Your task to perform on an android device: change the clock style Image 0: 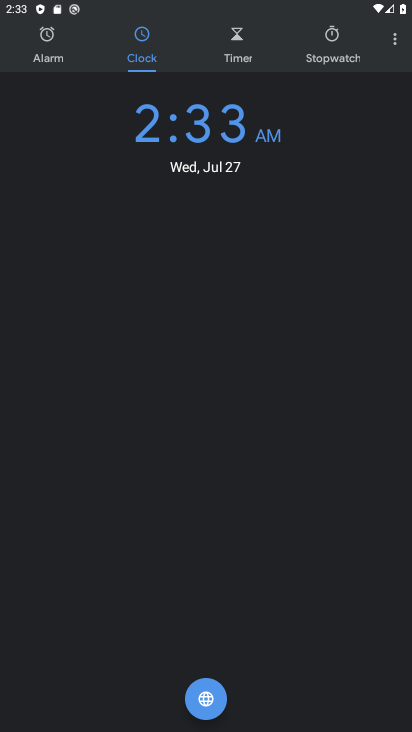
Step 0: press home button
Your task to perform on an android device: change the clock style Image 1: 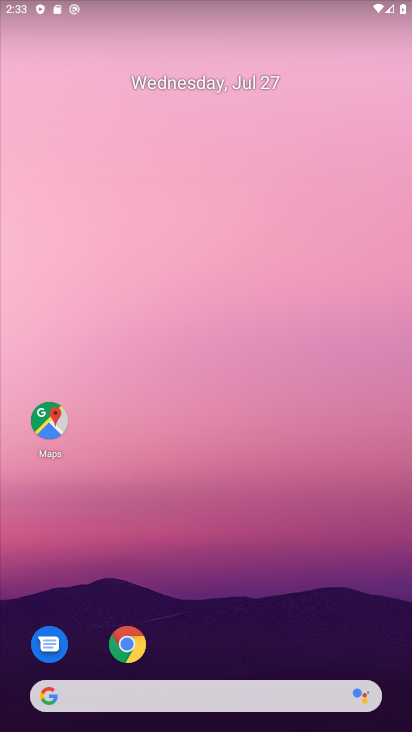
Step 1: drag from (262, 638) to (303, 16)
Your task to perform on an android device: change the clock style Image 2: 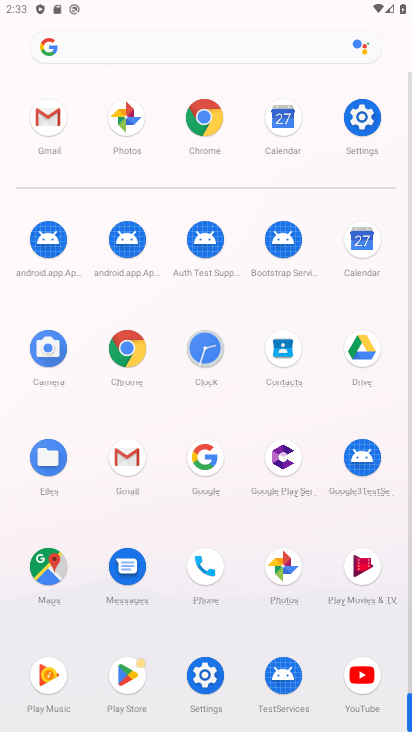
Step 2: click (213, 362)
Your task to perform on an android device: change the clock style Image 3: 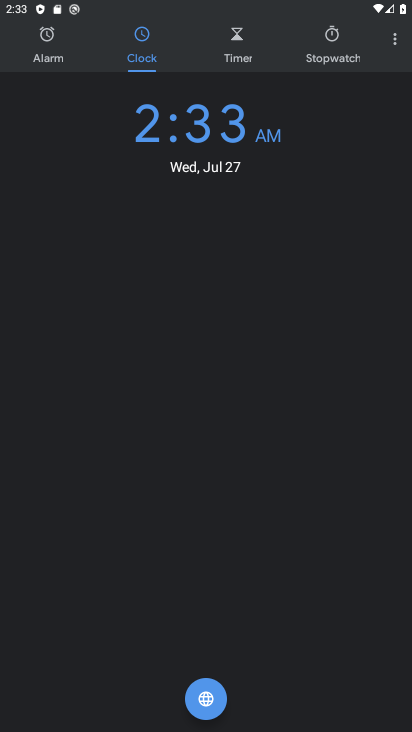
Step 3: click (391, 38)
Your task to perform on an android device: change the clock style Image 4: 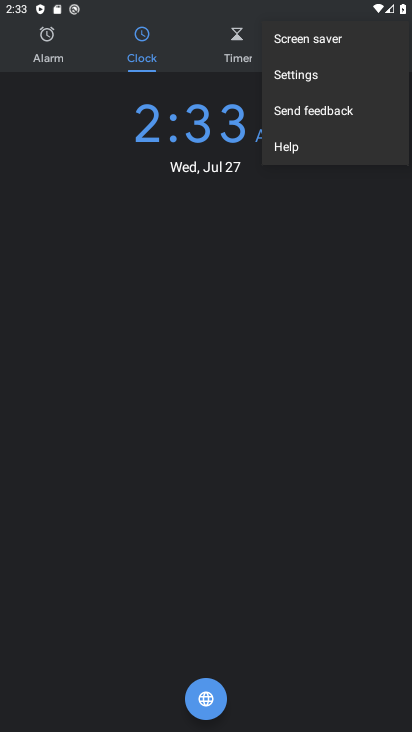
Step 4: click (310, 80)
Your task to perform on an android device: change the clock style Image 5: 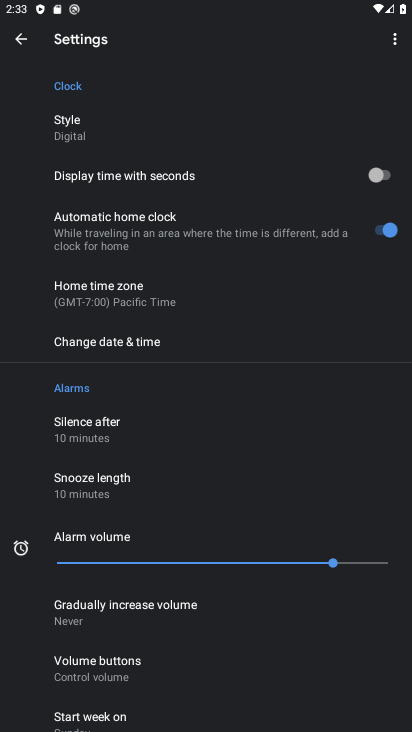
Step 5: click (97, 131)
Your task to perform on an android device: change the clock style Image 6: 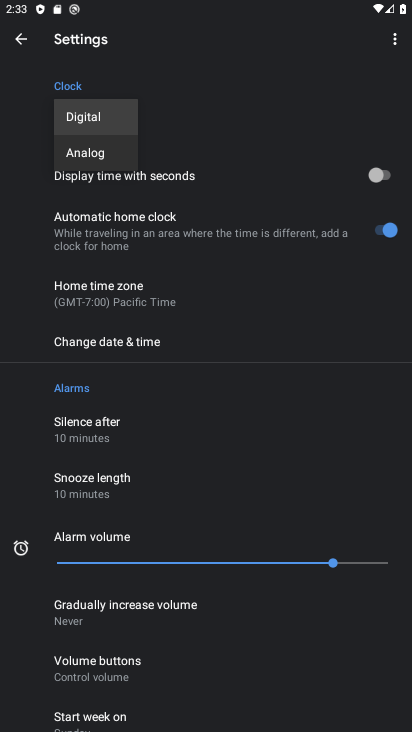
Step 6: click (81, 153)
Your task to perform on an android device: change the clock style Image 7: 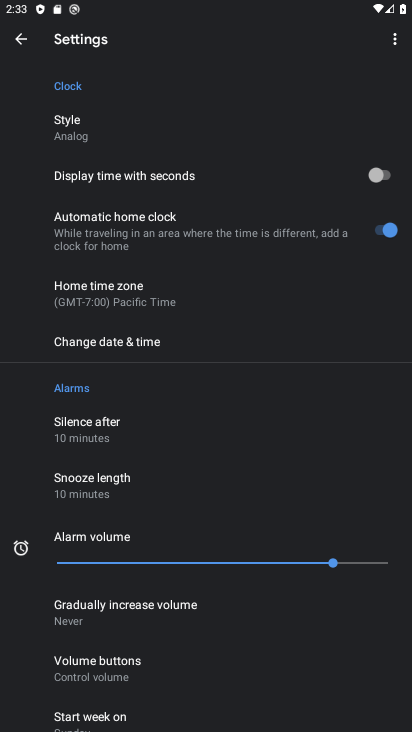
Step 7: task complete